Your task to perform on an android device: Open the web browser Image 0: 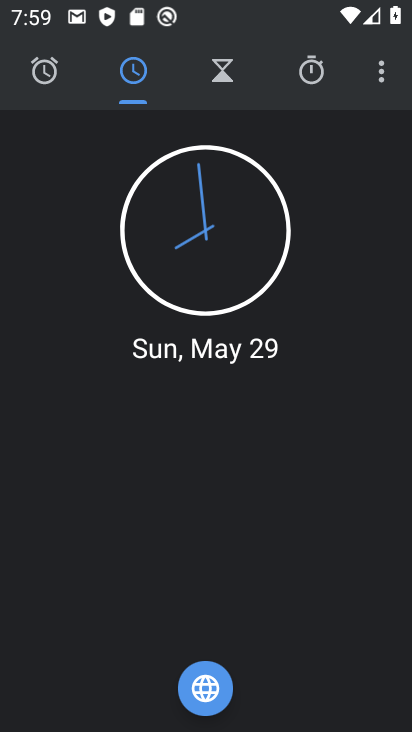
Step 0: press home button
Your task to perform on an android device: Open the web browser Image 1: 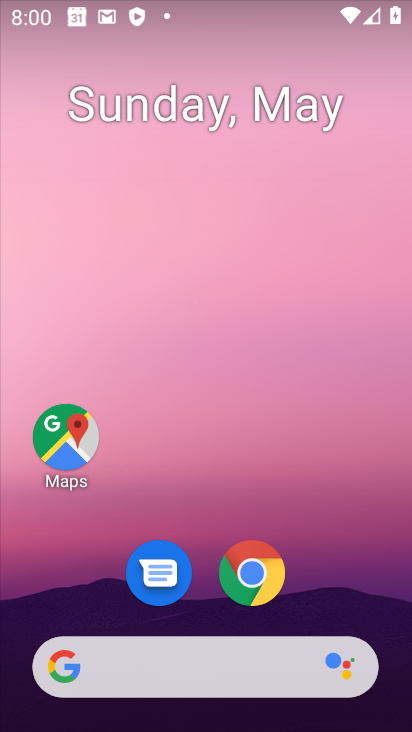
Step 1: click (253, 572)
Your task to perform on an android device: Open the web browser Image 2: 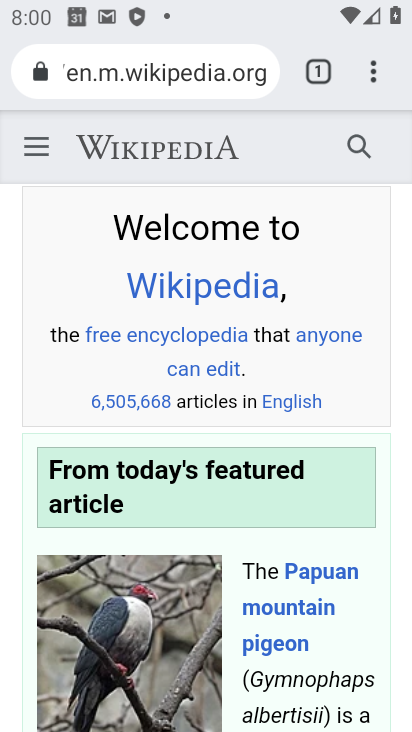
Step 2: click (374, 78)
Your task to perform on an android device: Open the web browser Image 3: 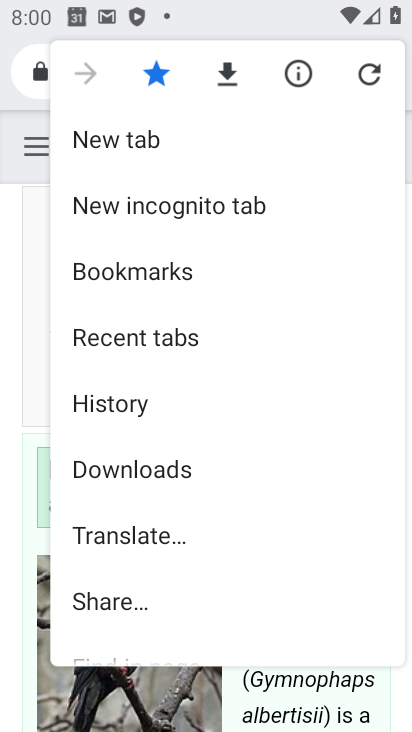
Step 3: click (266, 131)
Your task to perform on an android device: Open the web browser Image 4: 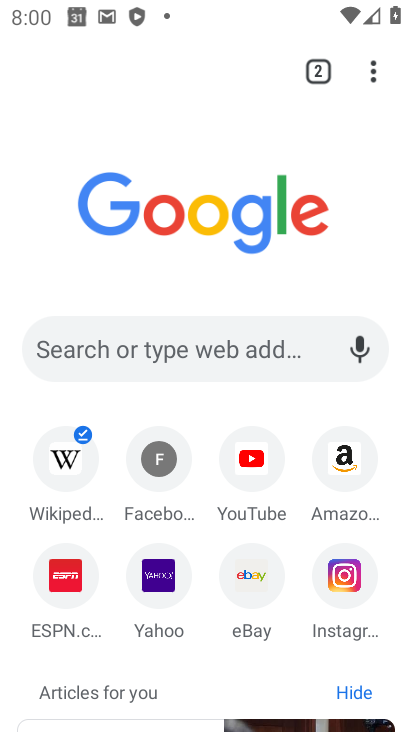
Step 4: task complete